Your task to perform on an android device: Open Wikipedia Image 0: 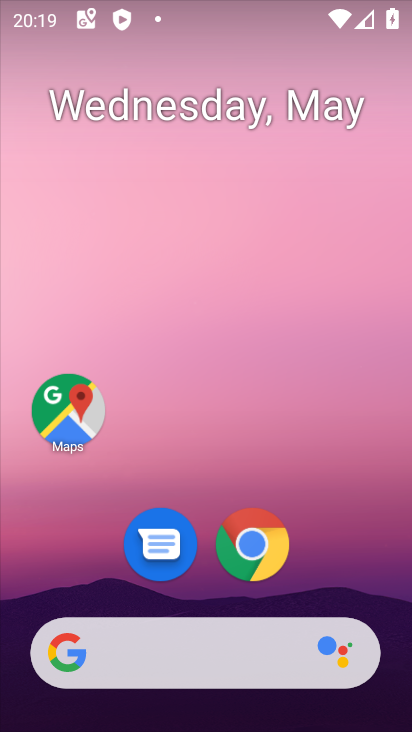
Step 0: click (261, 535)
Your task to perform on an android device: Open Wikipedia Image 1: 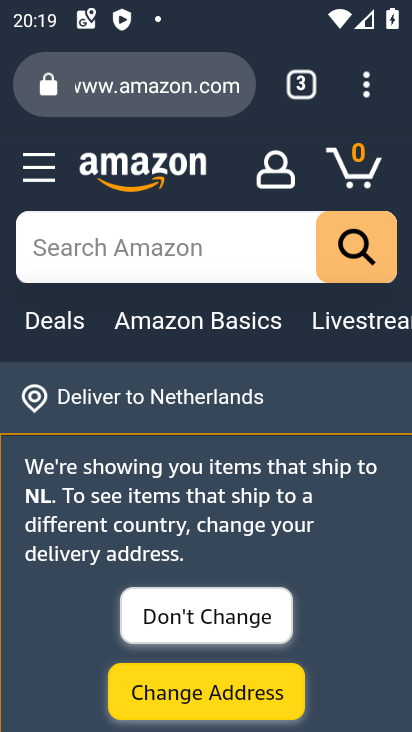
Step 1: click (311, 89)
Your task to perform on an android device: Open Wikipedia Image 2: 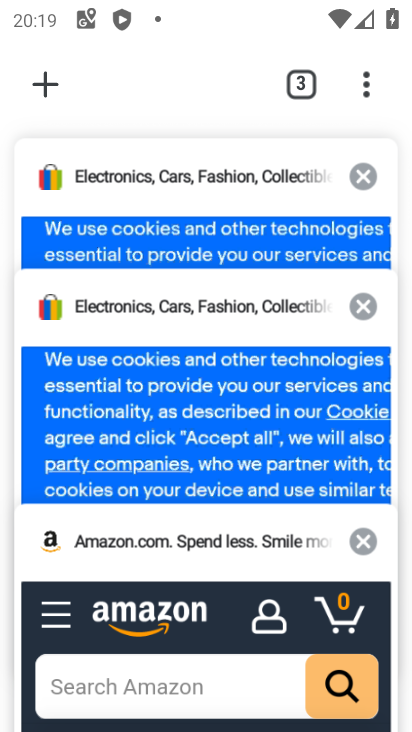
Step 2: click (46, 73)
Your task to perform on an android device: Open Wikipedia Image 3: 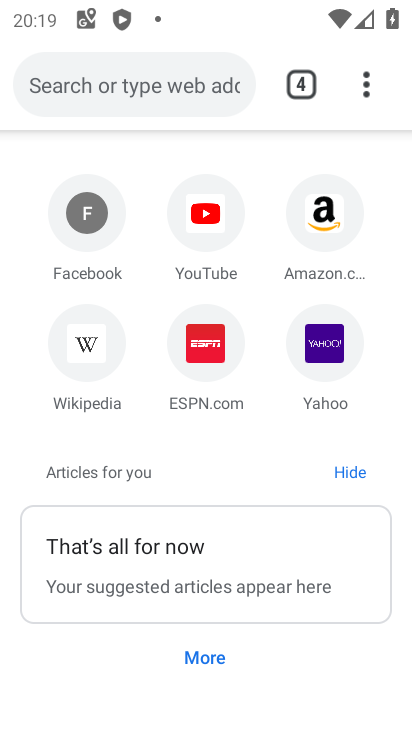
Step 3: click (83, 326)
Your task to perform on an android device: Open Wikipedia Image 4: 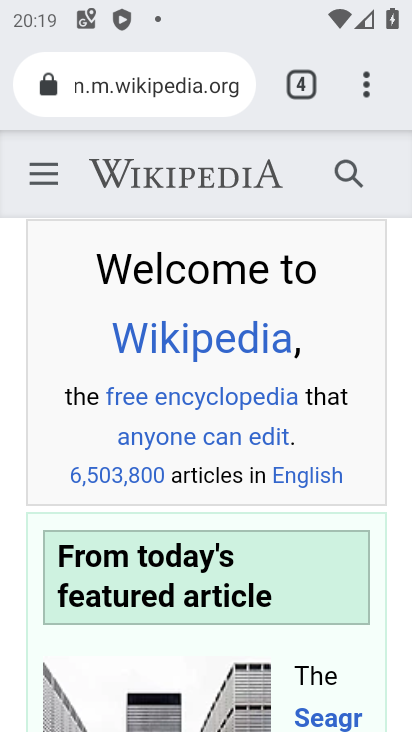
Step 4: task complete